Your task to perform on an android device: Open CNN.com Image 0: 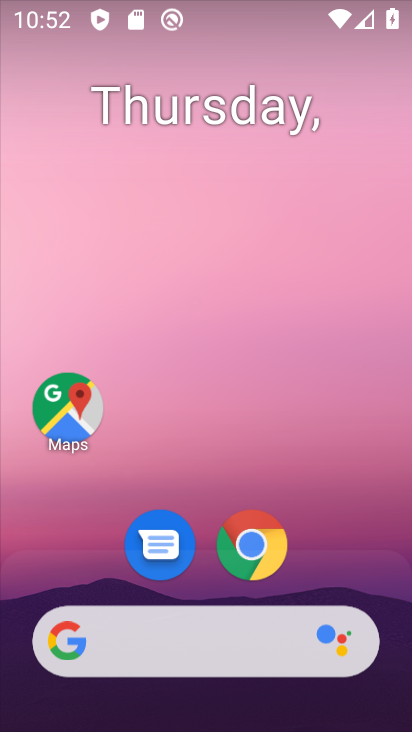
Step 0: click (250, 547)
Your task to perform on an android device: Open CNN.com Image 1: 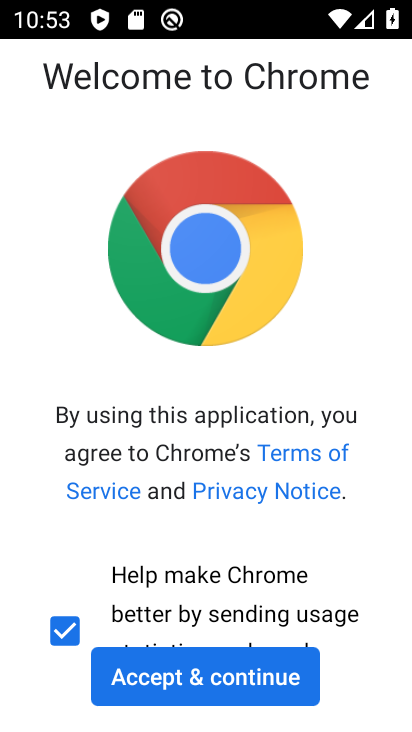
Step 1: click (171, 684)
Your task to perform on an android device: Open CNN.com Image 2: 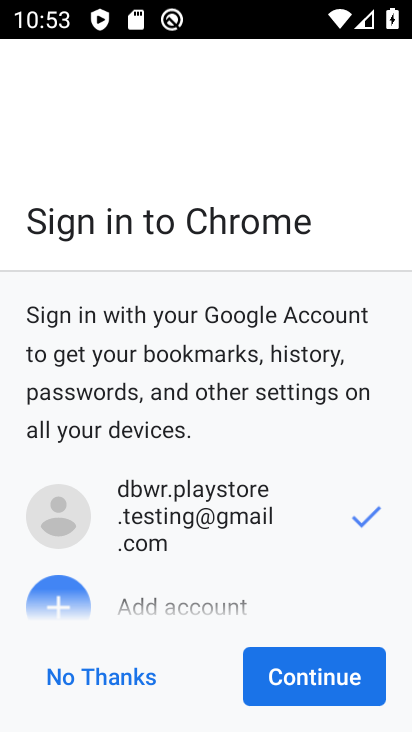
Step 2: click (309, 688)
Your task to perform on an android device: Open CNN.com Image 3: 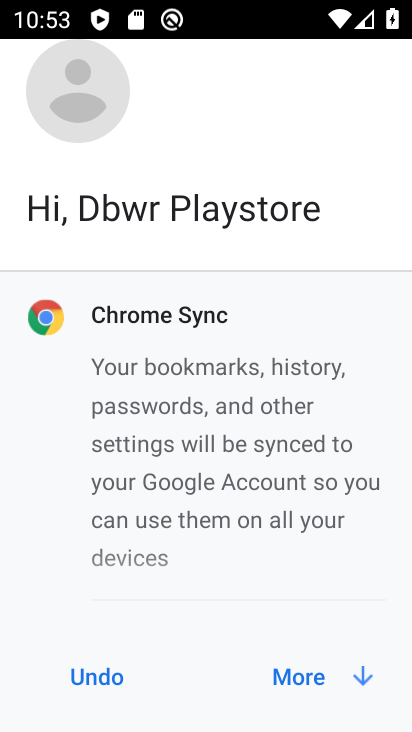
Step 3: click (295, 666)
Your task to perform on an android device: Open CNN.com Image 4: 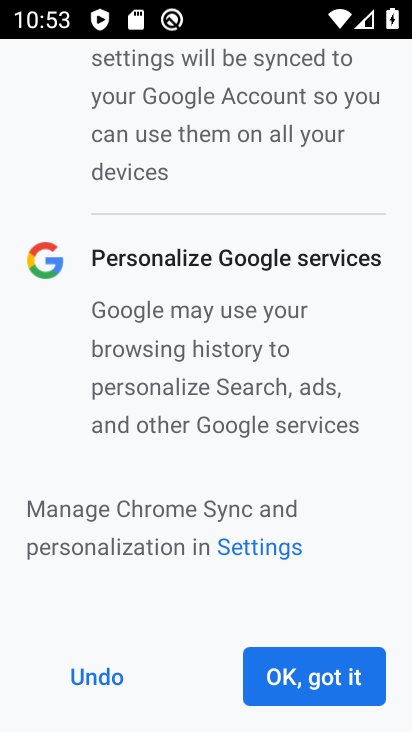
Step 4: click (288, 681)
Your task to perform on an android device: Open CNN.com Image 5: 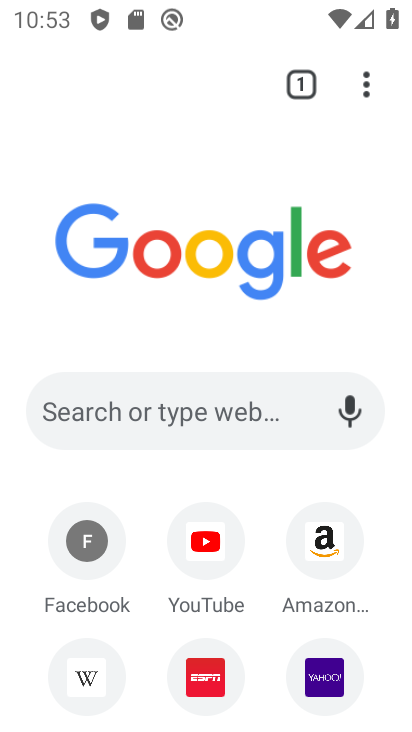
Step 5: click (159, 419)
Your task to perform on an android device: Open CNN.com Image 6: 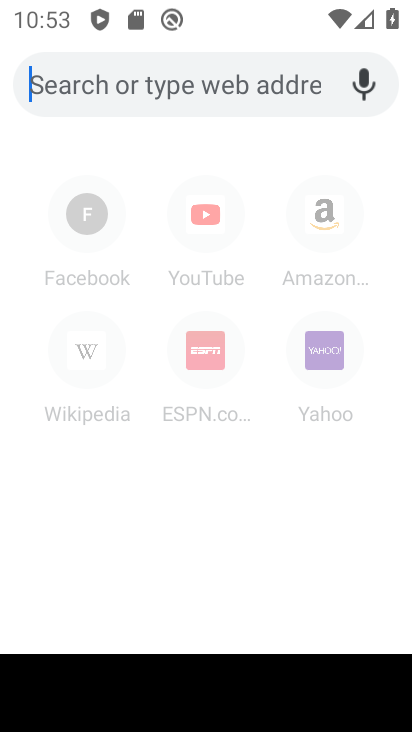
Step 6: type "www.cnn.com"
Your task to perform on an android device: Open CNN.com Image 7: 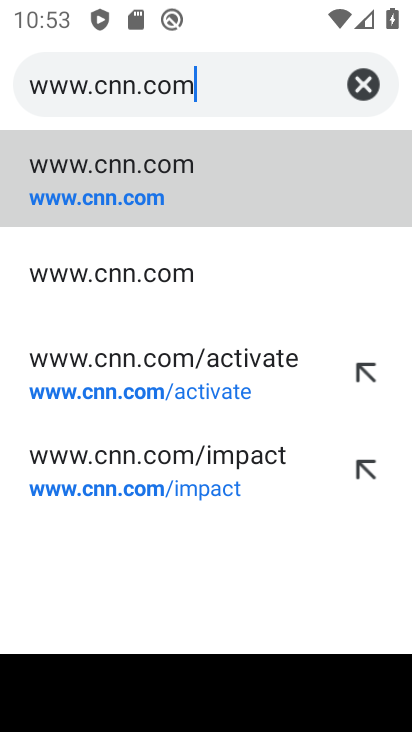
Step 7: click (113, 179)
Your task to perform on an android device: Open CNN.com Image 8: 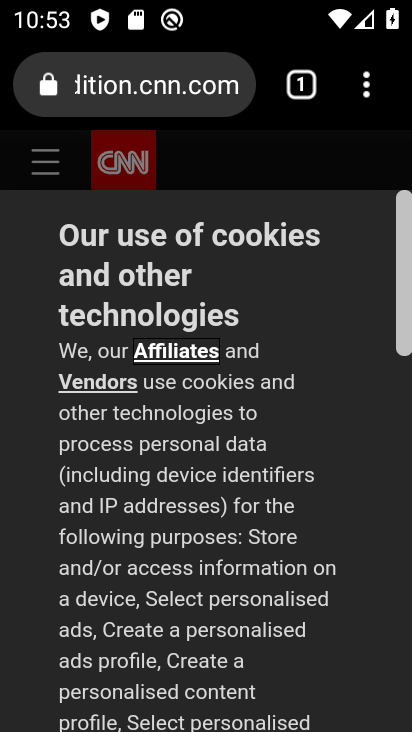
Step 8: task complete